Your task to perform on an android device: turn off notifications settings in the gmail app Image 0: 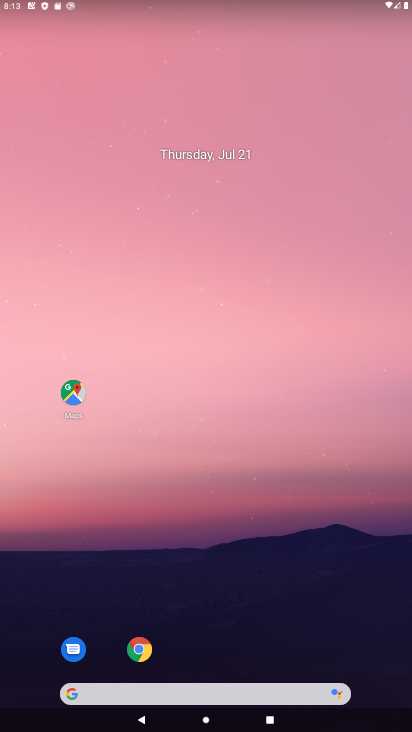
Step 0: drag from (238, 625) to (254, 101)
Your task to perform on an android device: turn off notifications settings in the gmail app Image 1: 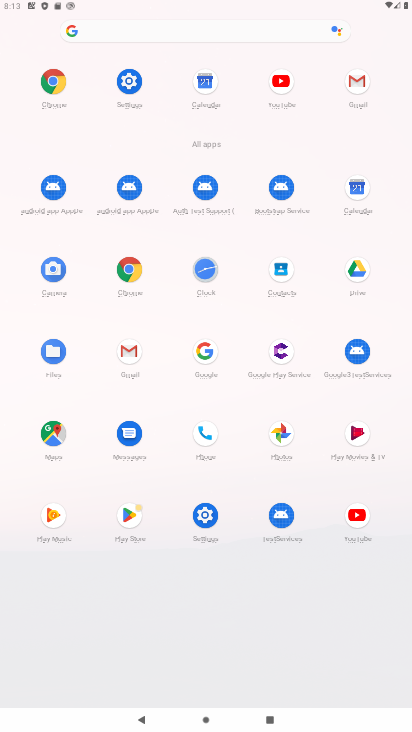
Step 1: click (128, 353)
Your task to perform on an android device: turn off notifications settings in the gmail app Image 2: 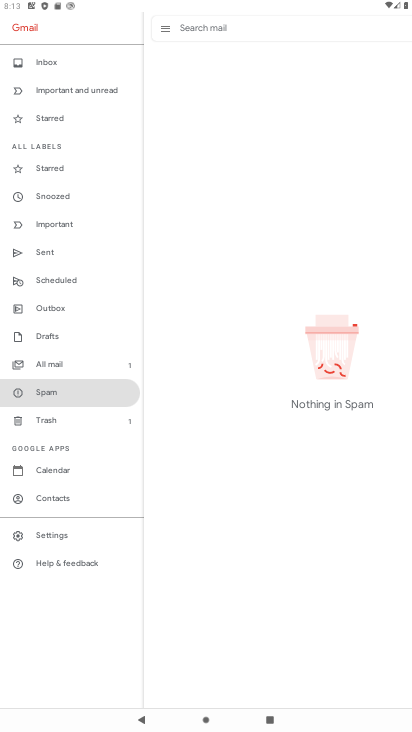
Step 2: click (60, 532)
Your task to perform on an android device: turn off notifications settings in the gmail app Image 3: 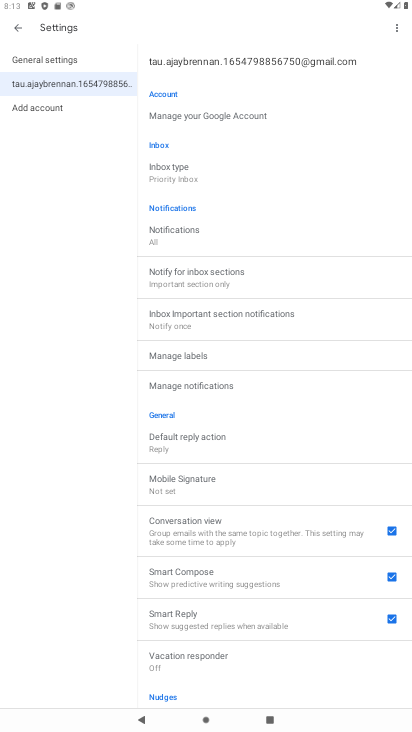
Step 3: click (84, 59)
Your task to perform on an android device: turn off notifications settings in the gmail app Image 4: 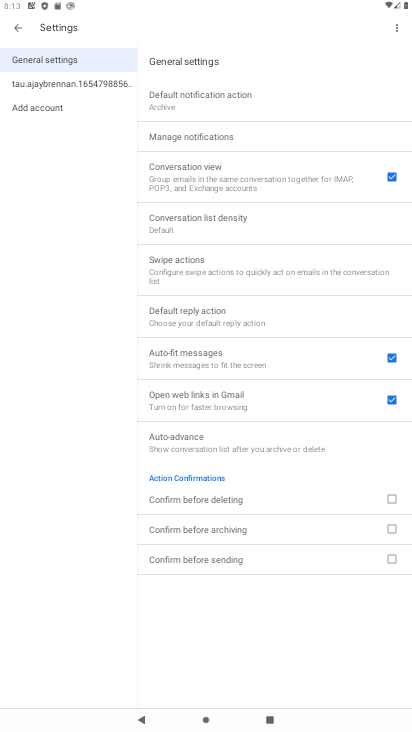
Step 4: click (224, 140)
Your task to perform on an android device: turn off notifications settings in the gmail app Image 5: 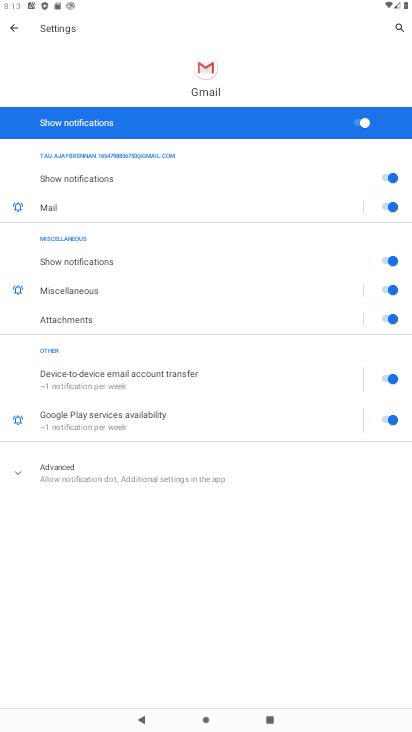
Step 5: click (343, 115)
Your task to perform on an android device: turn off notifications settings in the gmail app Image 6: 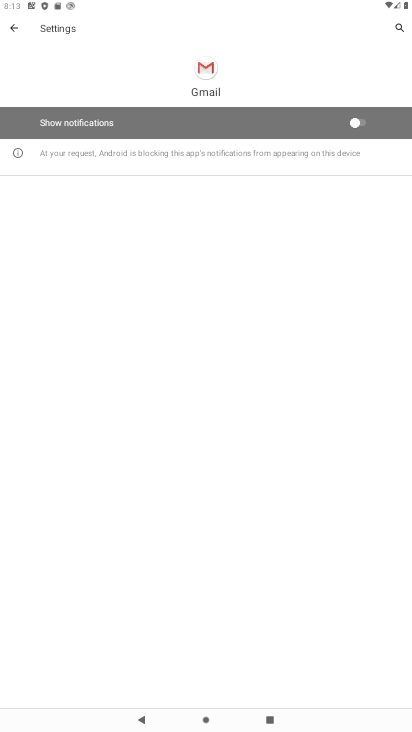
Step 6: task complete